Your task to perform on an android device: Is it going to rain this weekend? Image 0: 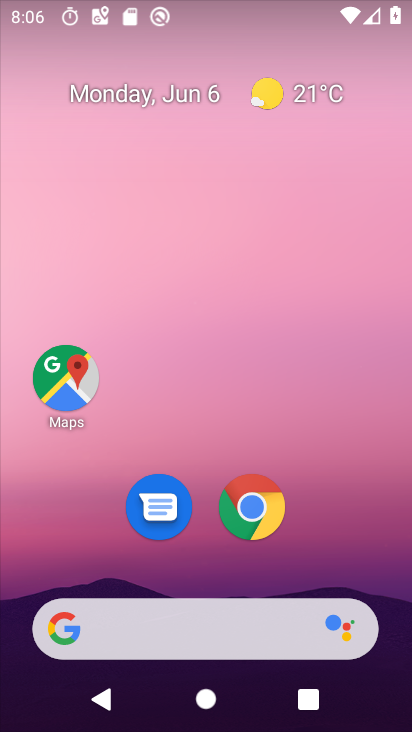
Step 0: press home button
Your task to perform on an android device: Is it going to rain this weekend? Image 1: 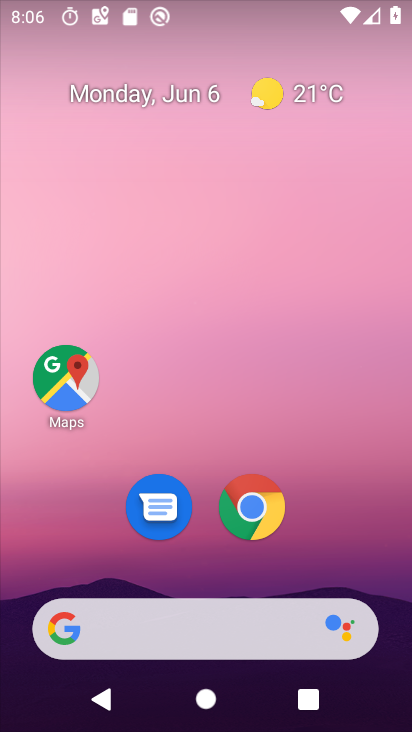
Step 1: click (257, 496)
Your task to perform on an android device: Is it going to rain this weekend? Image 2: 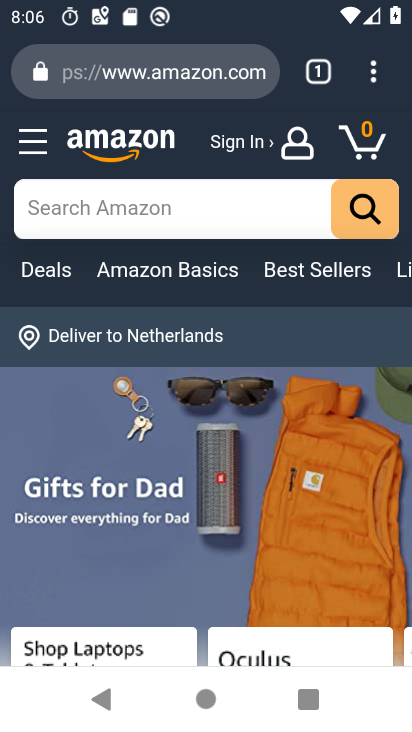
Step 2: click (251, 138)
Your task to perform on an android device: Is it going to rain this weekend? Image 3: 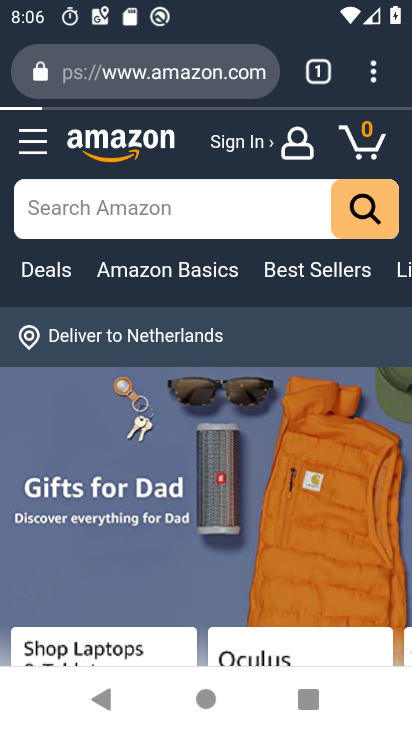
Step 3: click (235, 72)
Your task to perform on an android device: Is it going to rain this weekend? Image 4: 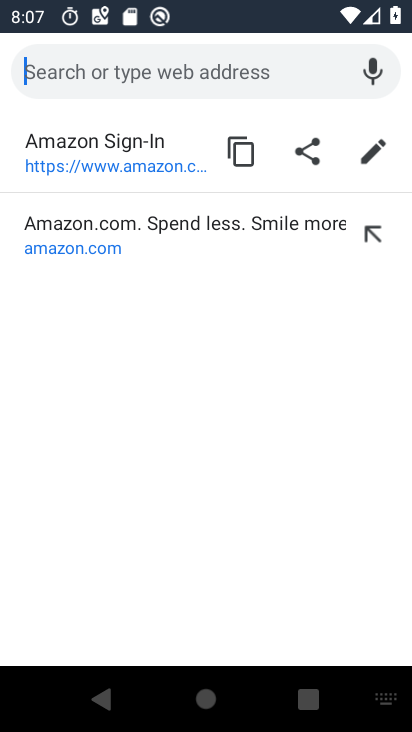
Step 4: type " Is it going to rain this weekend?"
Your task to perform on an android device: Is it going to rain this weekend? Image 5: 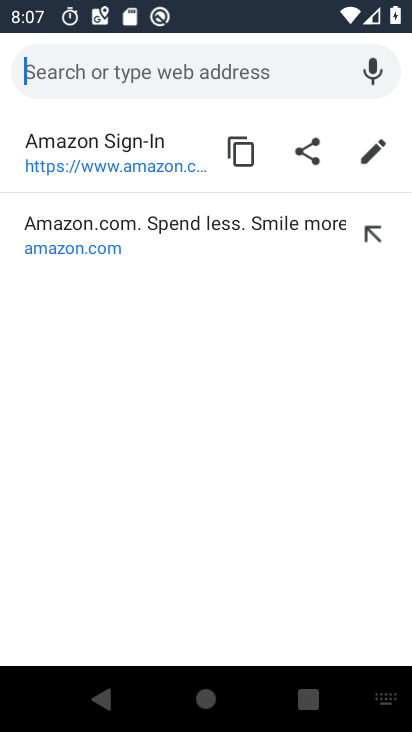
Step 5: click (153, 170)
Your task to perform on an android device: Is it going to rain this weekend? Image 6: 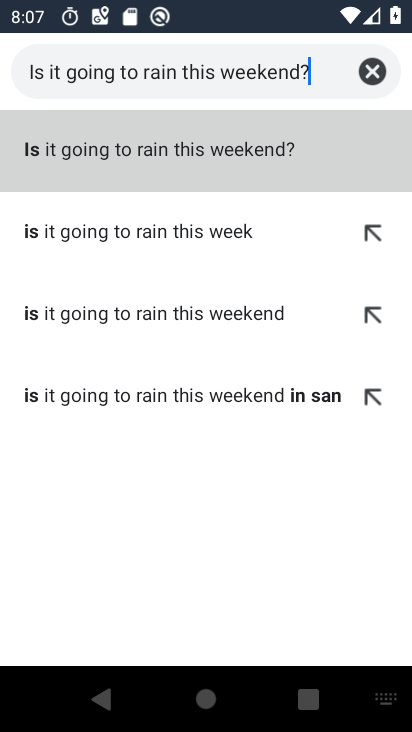
Step 6: type ""
Your task to perform on an android device: Is it going to rain this weekend? Image 7: 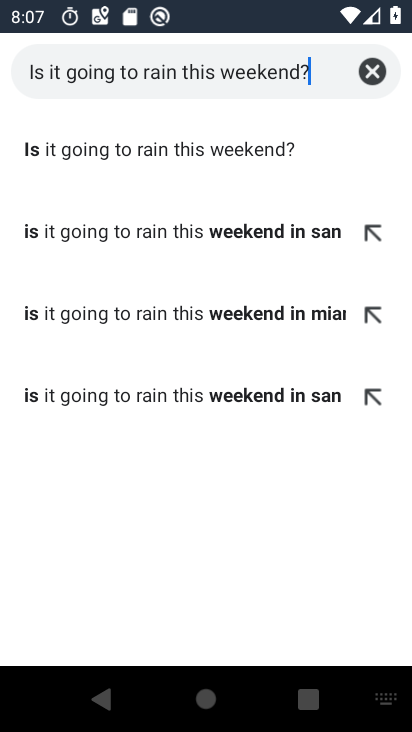
Step 7: click (252, 134)
Your task to perform on an android device: Is it going to rain this weekend? Image 8: 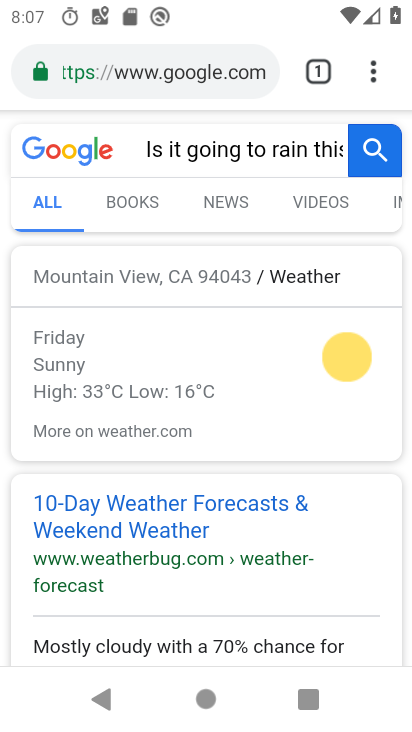
Step 8: task complete